Your task to perform on an android device: Go to Yahoo.com Image 0: 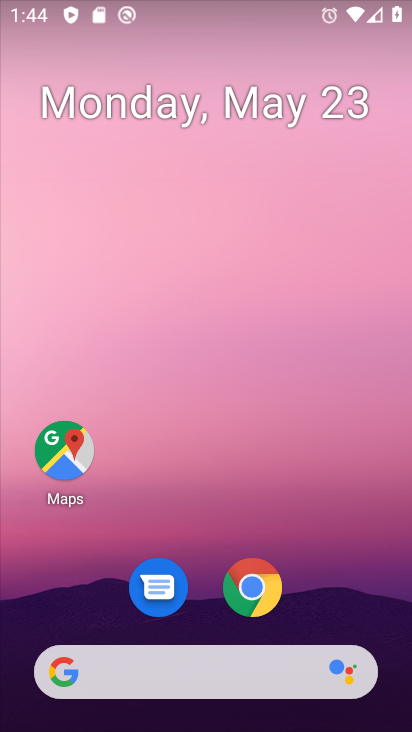
Step 0: click (237, 579)
Your task to perform on an android device: Go to Yahoo.com Image 1: 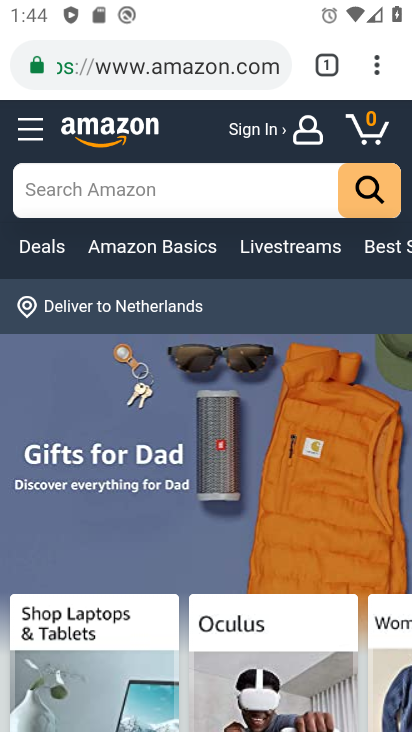
Step 1: click (255, 64)
Your task to perform on an android device: Go to Yahoo.com Image 2: 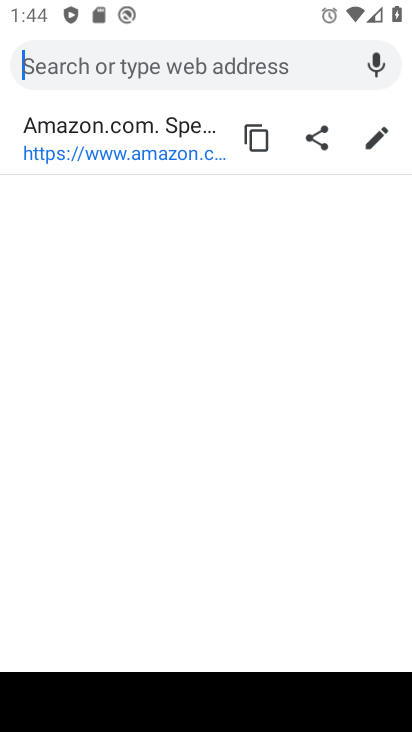
Step 2: type "yahoo.com"
Your task to perform on an android device: Go to Yahoo.com Image 3: 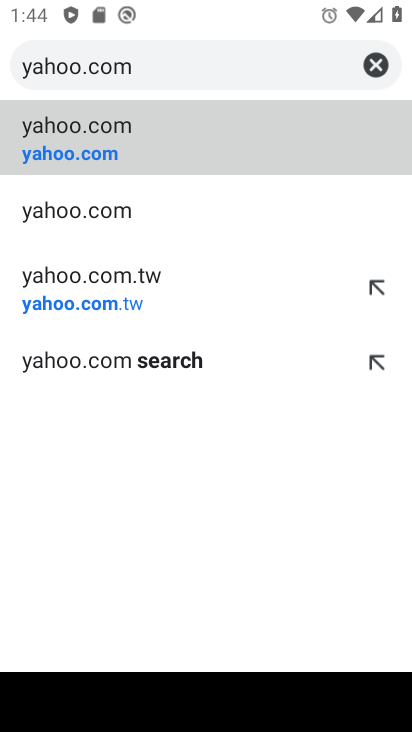
Step 3: click (274, 152)
Your task to perform on an android device: Go to Yahoo.com Image 4: 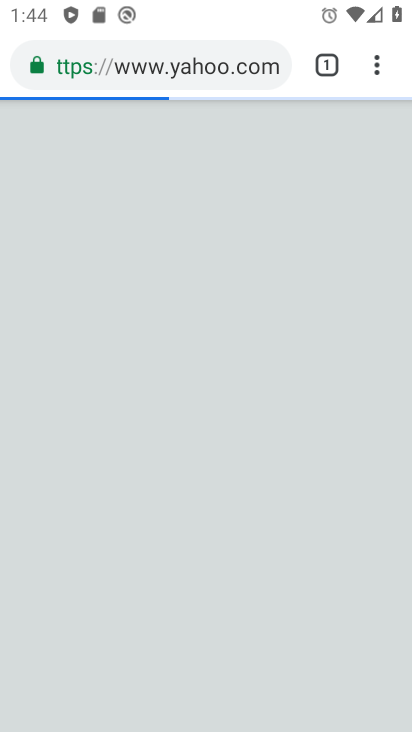
Step 4: task complete